Your task to perform on an android device: Add razer deathadder to the cart on amazon Image 0: 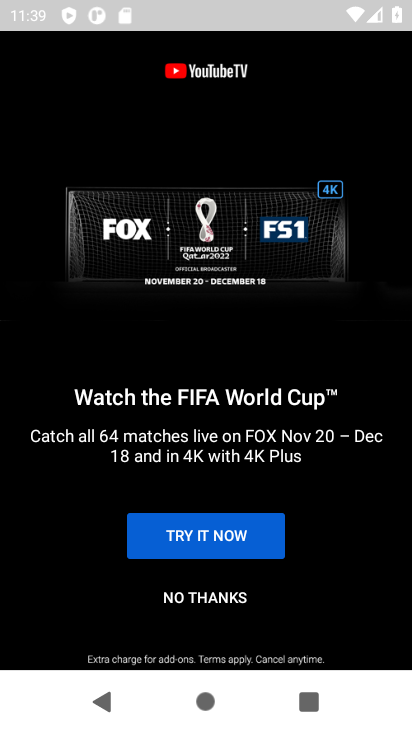
Step 0: press home button
Your task to perform on an android device: Add razer deathadder to the cart on amazon Image 1: 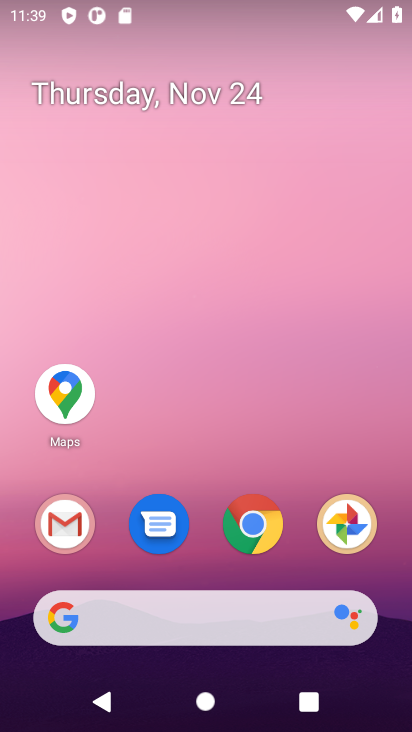
Step 1: click (248, 535)
Your task to perform on an android device: Add razer deathadder to the cart on amazon Image 2: 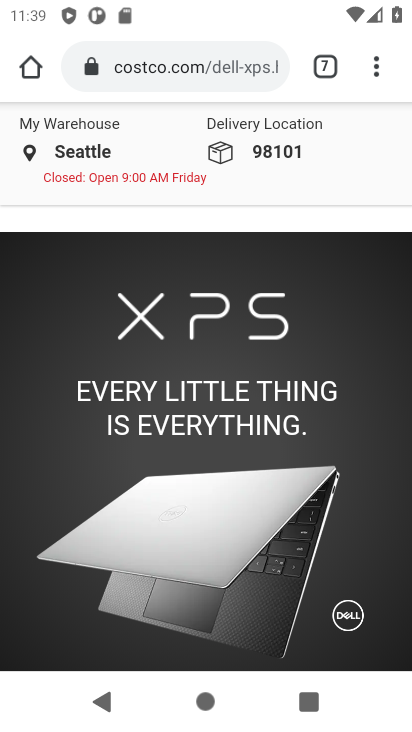
Step 2: click (150, 68)
Your task to perform on an android device: Add razer deathadder to the cart on amazon Image 3: 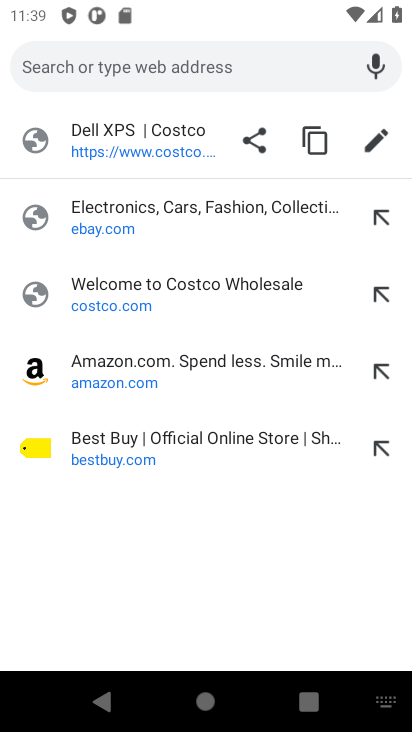
Step 3: click (91, 365)
Your task to perform on an android device: Add razer deathadder to the cart on amazon Image 4: 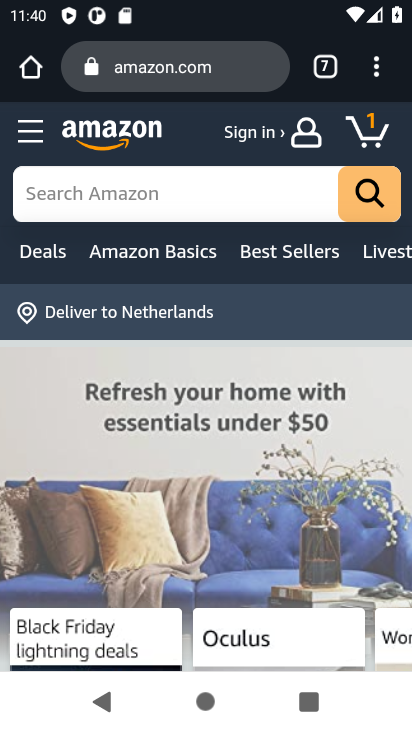
Step 4: click (121, 186)
Your task to perform on an android device: Add razer deathadder to the cart on amazon Image 5: 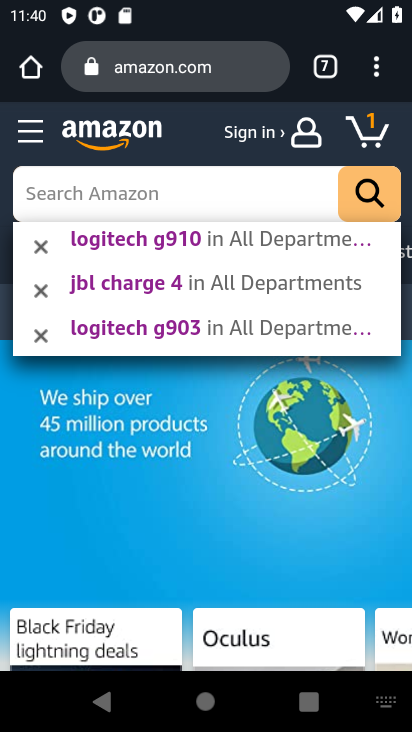
Step 5: type "razer deathadder"
Your task to perform on an android device: Add razer deathadder to the cart on amazon Image 6: 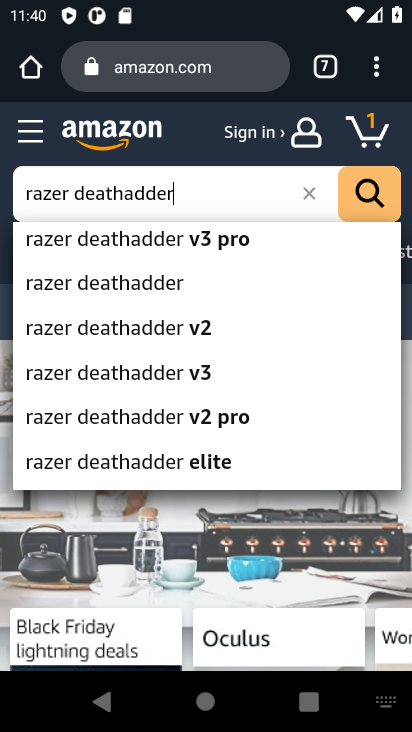
Step 6: click (113, 289)
Your task to perform on an android device: Add razer deathadder to the cart on amazon Image 7: 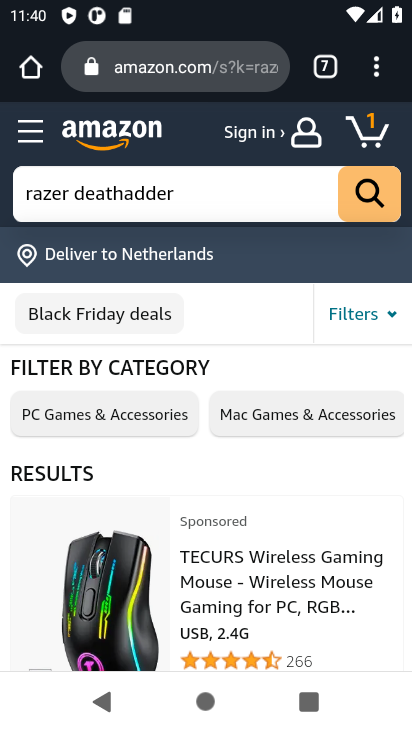
Step 7: drag from (174, 447) to (170, 244)
Your task to perform on an android device: Add razer deathadder to the cart on amazon Image 8: 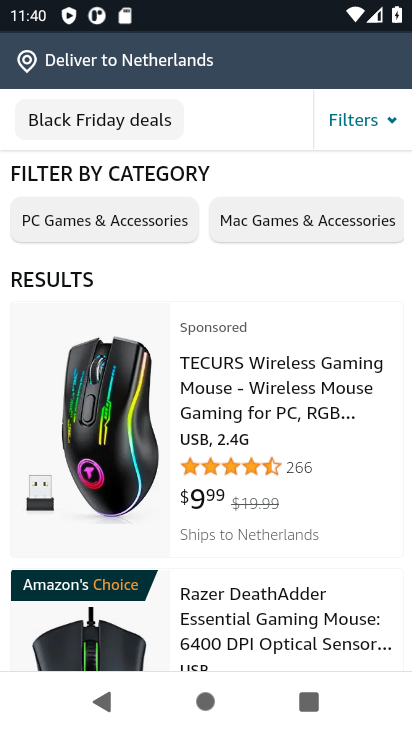
Step 8: drag from (157, 466) to (147, 267)
Your task to perform on an android device: Add razer deathadder to the cart on amazon Image 9: 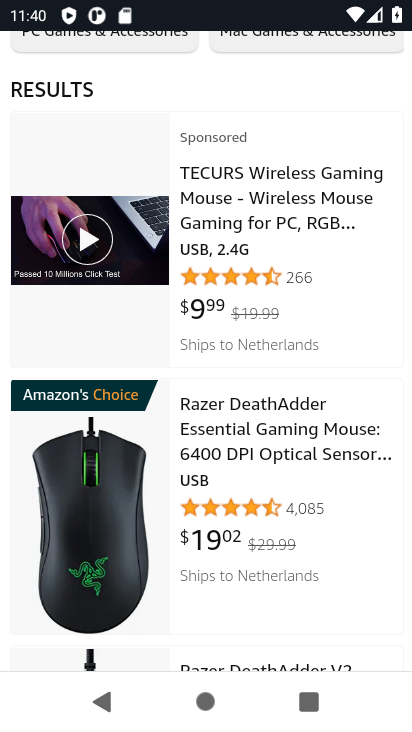
Step 9: click (117, 513)
Your task to perform on an android device: Add razer deathadder to the cart on amazon Image 10: 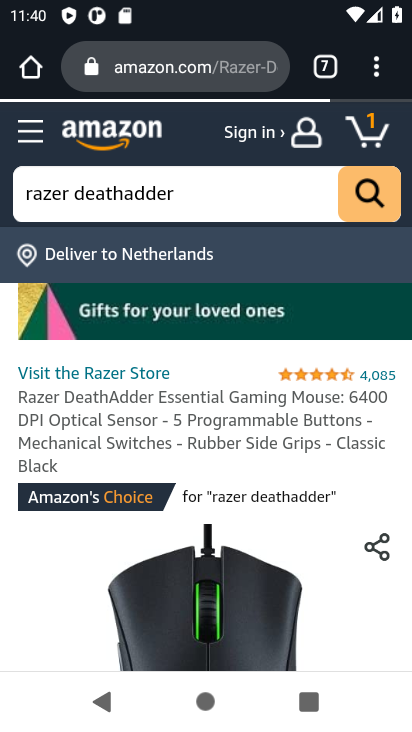
Step 10: drag from (137, 511) to (142, 211)
Your task to perform on an android device: Add razer deathadder to the cart on amazon Image 11: 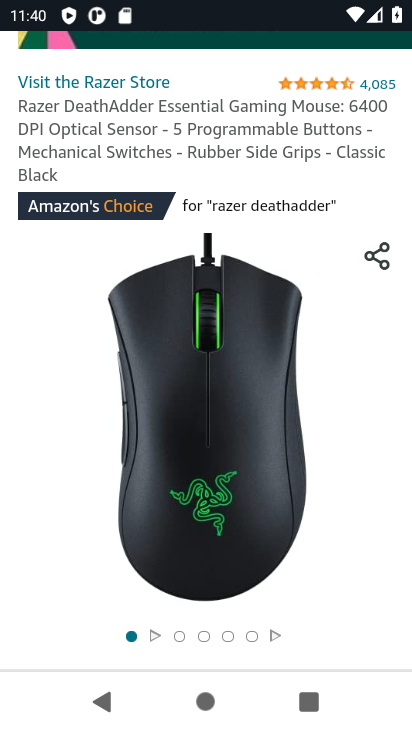
Step 11: drag from (137, 491) to (102, 178)
Your task to perform on an android device: Add razer deathadder to the cart on amazon Image 12: 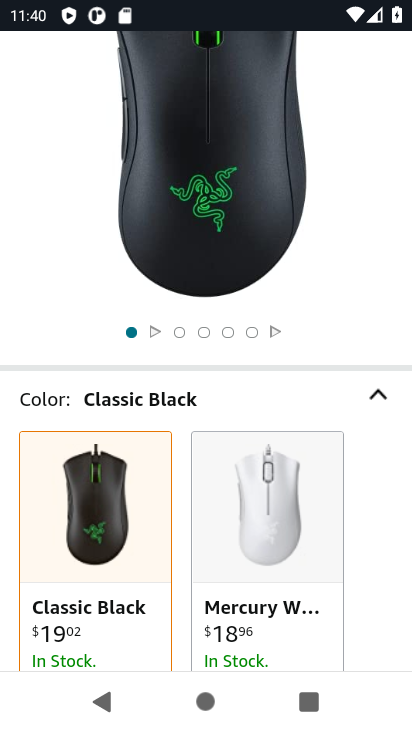
Step 12: drag from (111, 490) to (98, 171)
Your task to perform on an android device: Add razer deathadder to the cart on amazon Image 13: 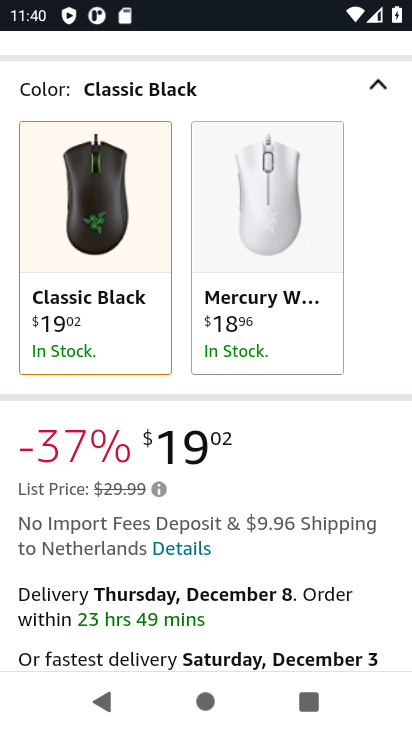
Step 13: drag from (139, 523) to (139, 205)
Your task to perform on an android device: Add razer deathadder to the cart on amazon Image 14: 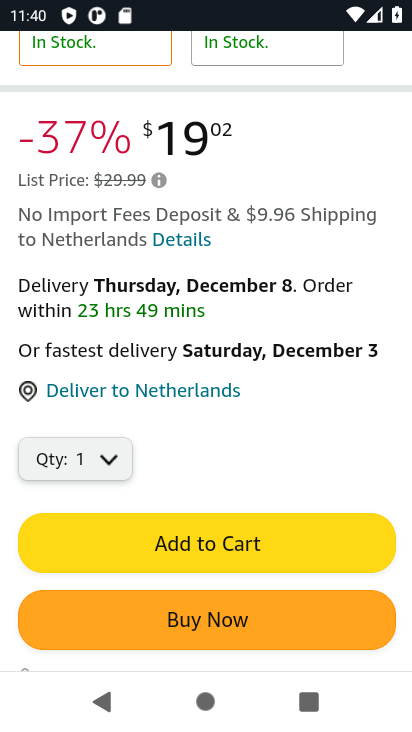
Step 14: click (184, 546)
Your task to perform on an android device: Add razer deathadder to the cart on amazon Image 15: 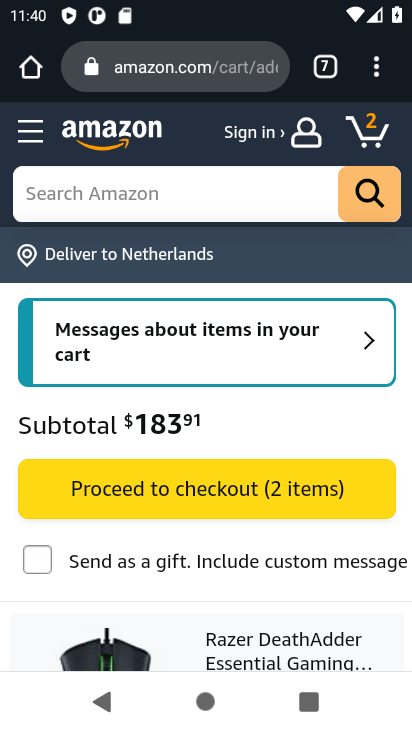
Step 15: task complete